Your task to perform on an android device: turn smart compose on in the gmail app Image 0: 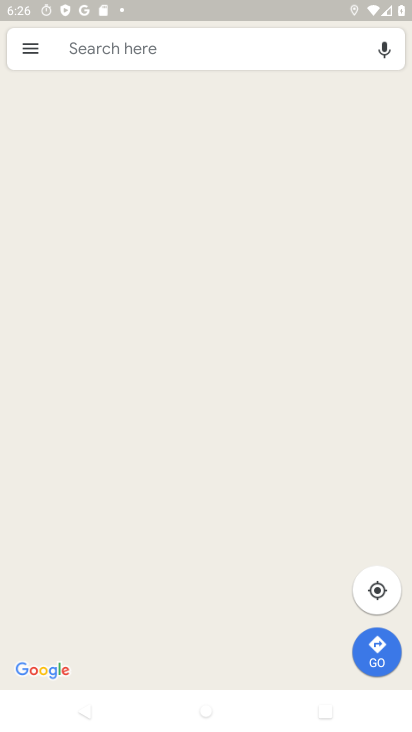
Step 0: drag from (200, 567) to (216, 230)
Your task to perform on an android device: turn smart compose on in the gmail app Image 1: 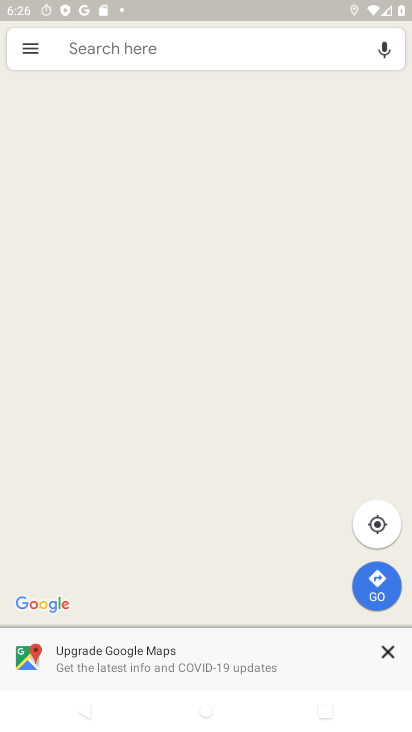
Step 1: press home button
Your task to perform on an android device: turn smart compose on in the gmail app Image 2: 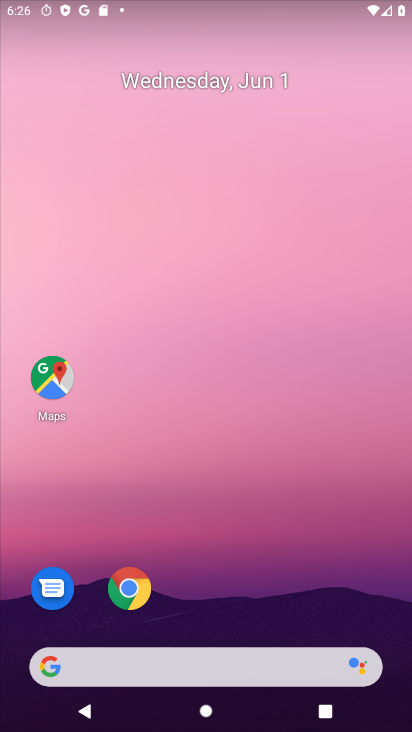
Step 2: drag from (176, 625) to (190, 319)
Your task to perform on an android device: turn smart compose on in the gmail app Image 3: 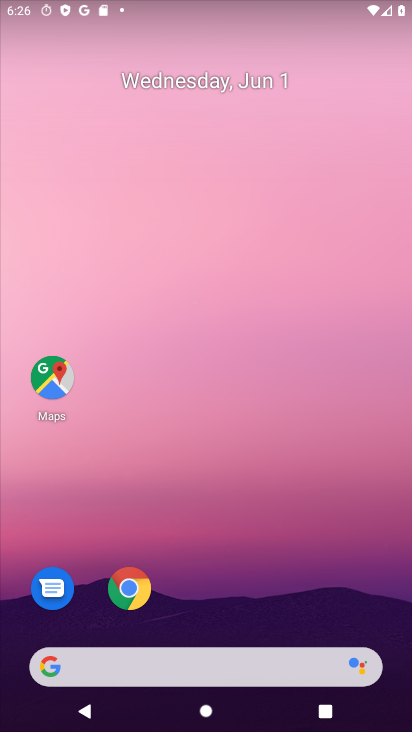
Step 3: drag from (256, 636) to (276, 298)
Your task to perform on an android device: turn smart compose on in the gmail app Image 4: 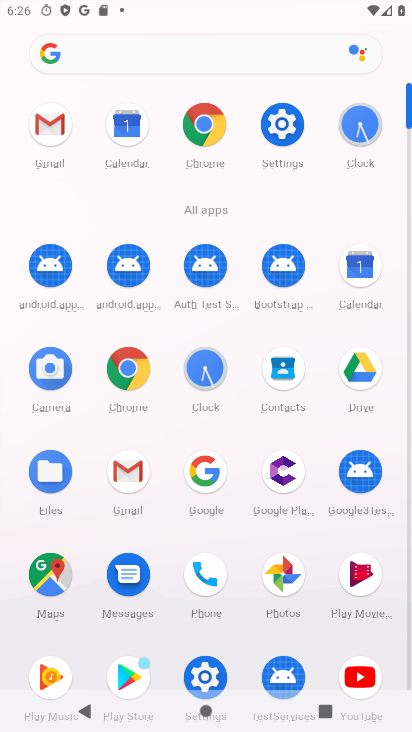
Step 4: click (53, 140)
Your task to perform on an android device: turn smart compose on in the gmail app Image 5: 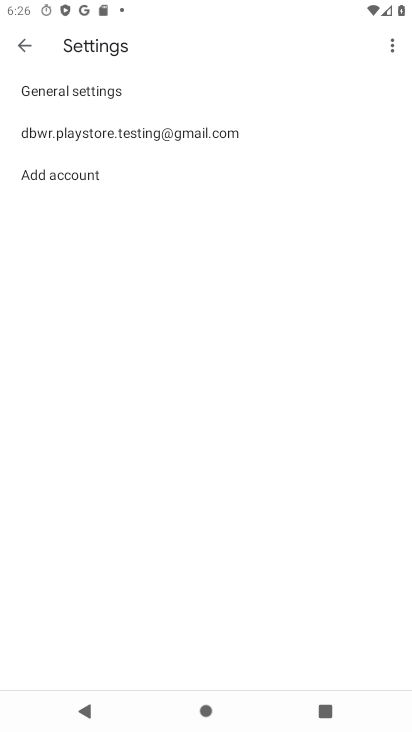
Step 5: click (82, 127)
Your task to perform on an android device: turn smart compose on in the gmail app Image 6: 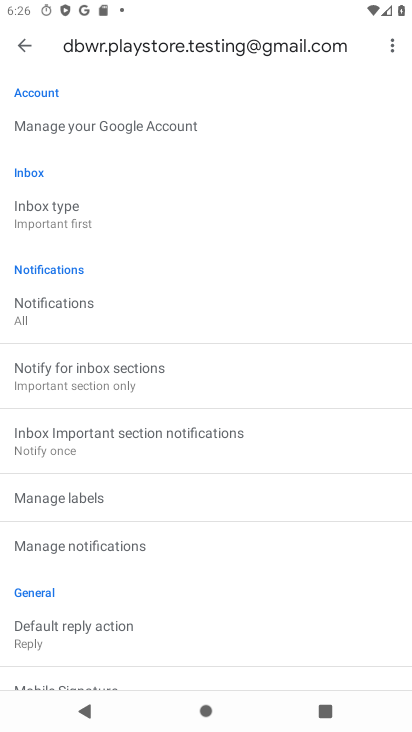
Step 6: task complete